Your task to perform on an android device: Go to Google Image 0: 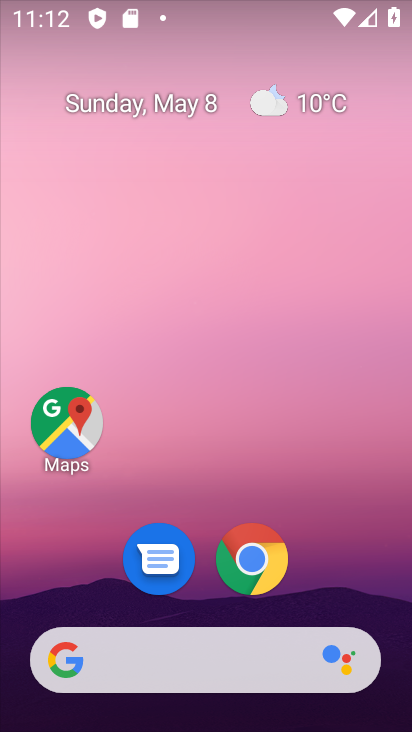
Step 0: click (191, 650)
Your task to perform on an android device: Go to Google Image 1: 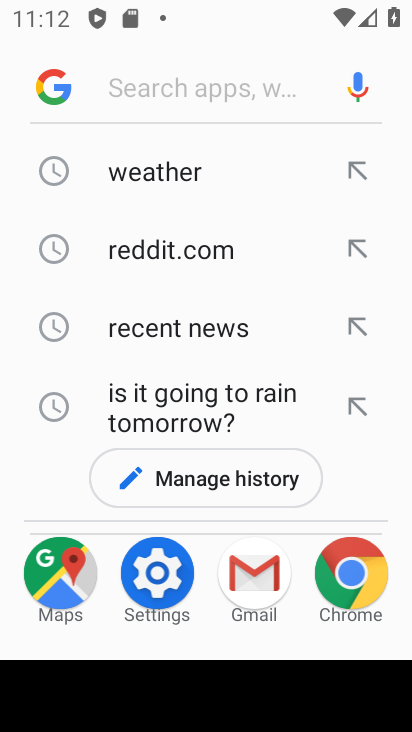
Step 1: click (58, 98)
Your task to perform on an android device: Go to Google Image 2: 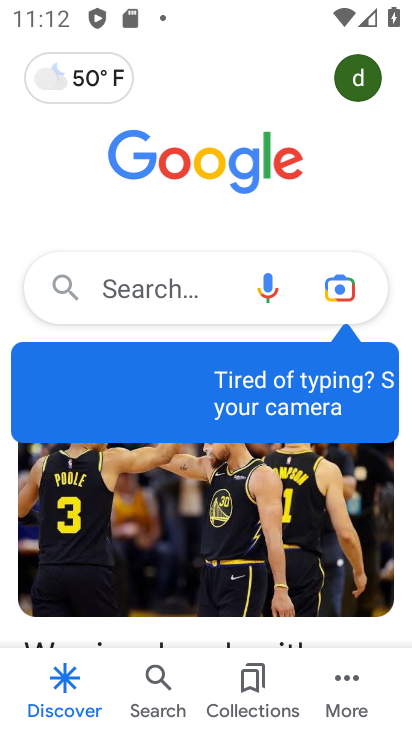
Step 2: task complete